Your task to perform on an android device: Go to Amazon Image 0: 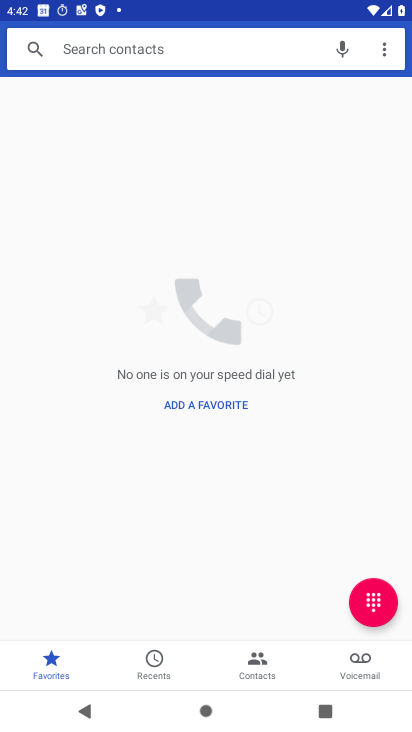
Step 0: press home button
Your task to perform on an android device: Go to Amazon Image 1: 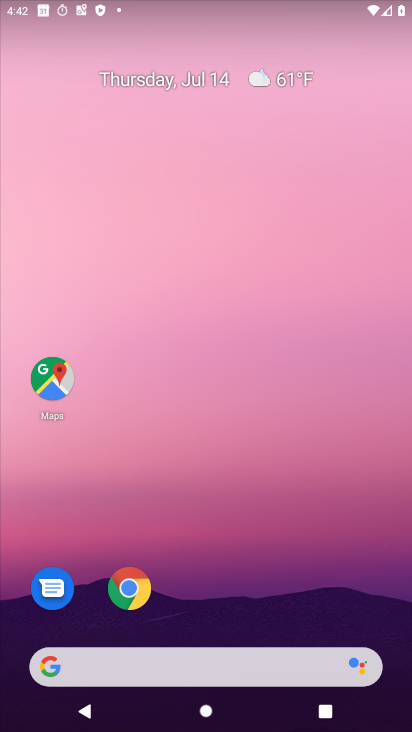
Step 1: click (129, 587)
Your task to perform on an android device: Go to Amazon Image 2: 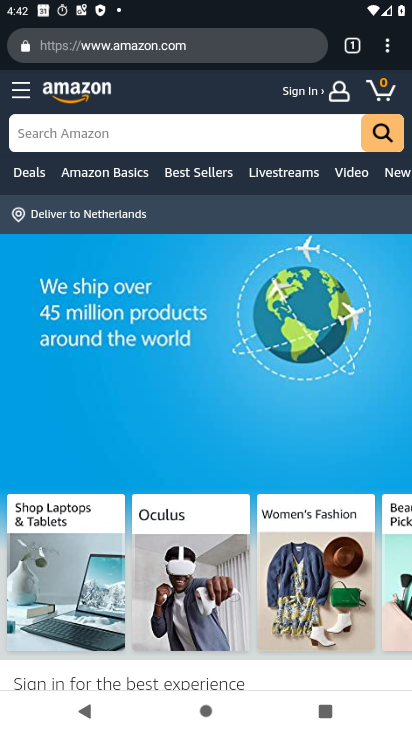
Step 2: click (241, 43)
Your task to perform on an android device: Go to Amazon Image 3: 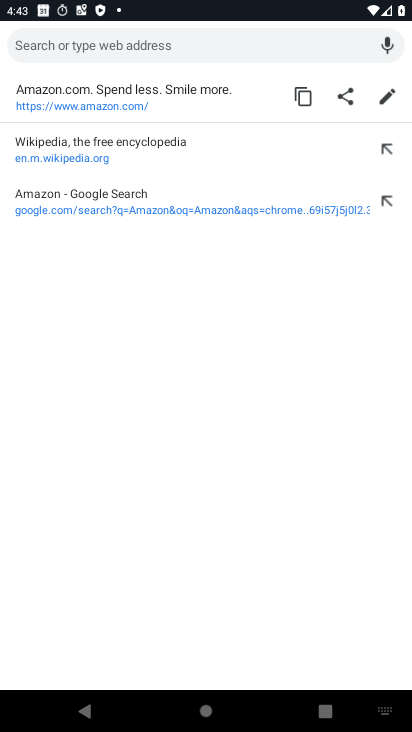
Step 3: type "Amazon"
Your task to perform on an android device: Go to Amazon Image 4: 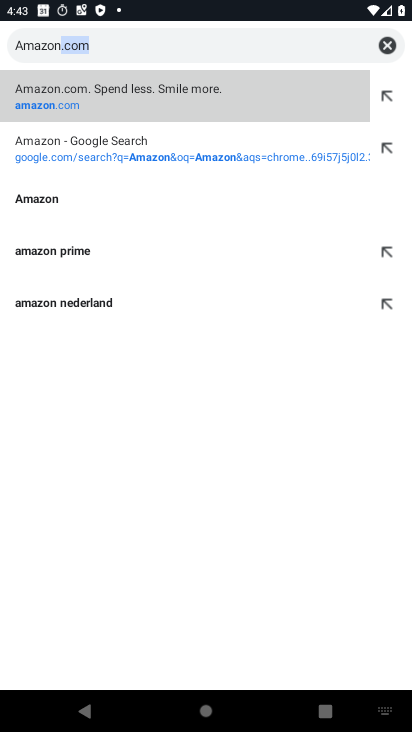
Step 4: click (103, 98)
Your task to perform on an android device: Go to Amazon Image 5: 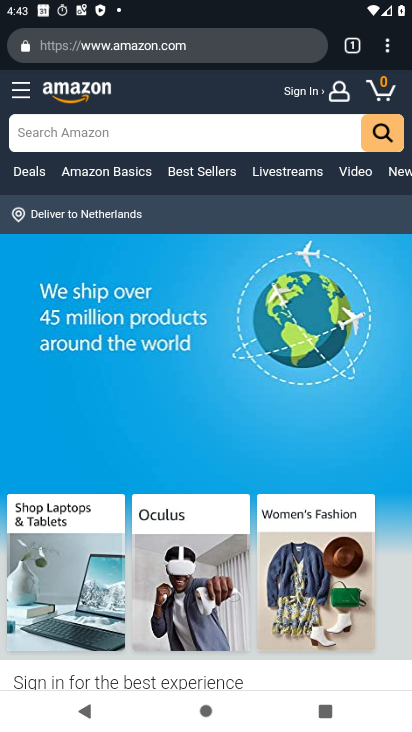
Step 5: task complete